Your task to perform on an android device: open a bookmark in the chrome app Image 0: 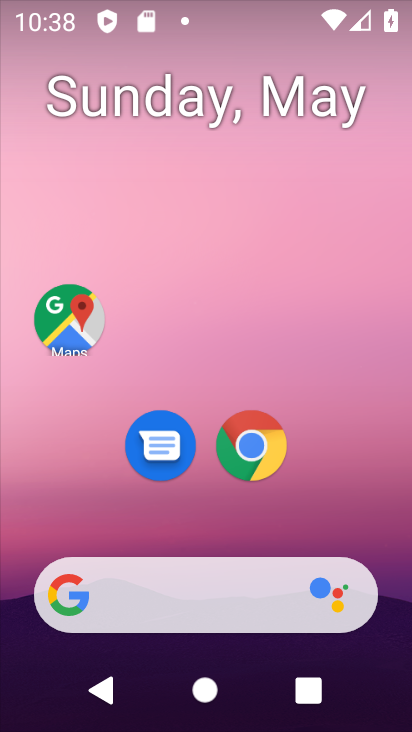
Step 0: click (248, 445)
Your task to perform on an android device: open a bookmark in the chrome app Image 1: 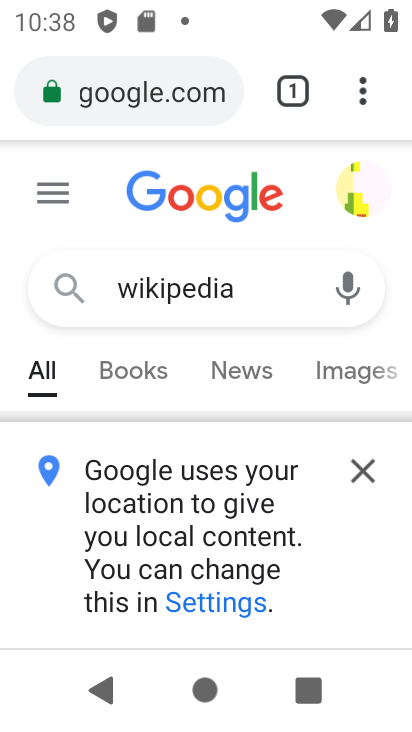
Step 1: click (363, 101)
Your task to perform on an android device: open a bookmark in the chrome app Image 2: 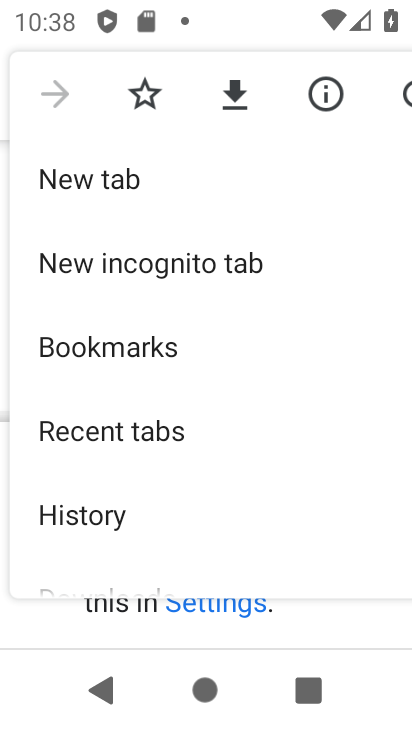
Step 2: click (154, 347)
Your task to perform on an android device: open a bookmark in the chrome app Image 3: 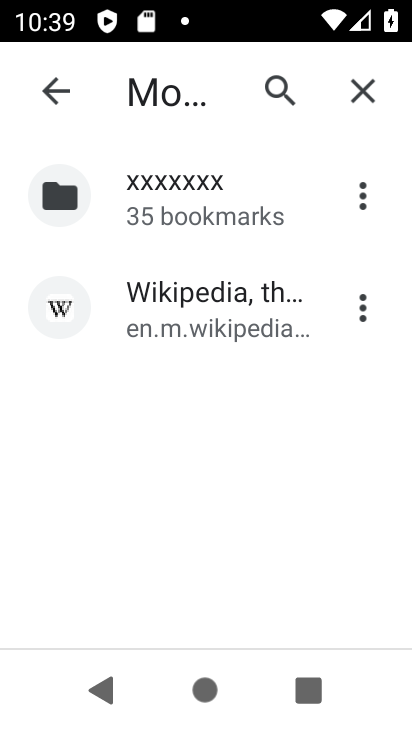
Step 3: task complete